Your task to perform on an android device: check google app version Image 0: 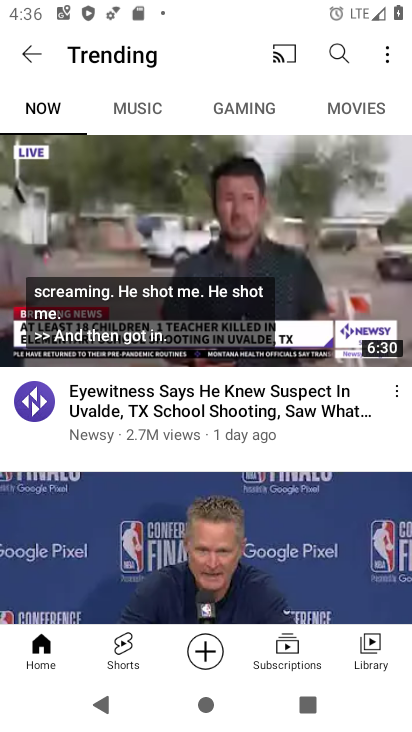
Step 0: press home button
Your task to perform on an android device: check google app version Image 1: 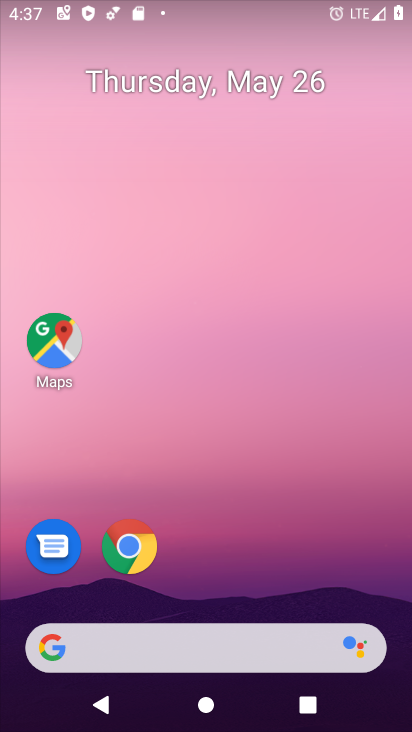
Step 1: drag from (237, 515) to (291, 2)
Your task to perform on an android device: check google app version Image 2: 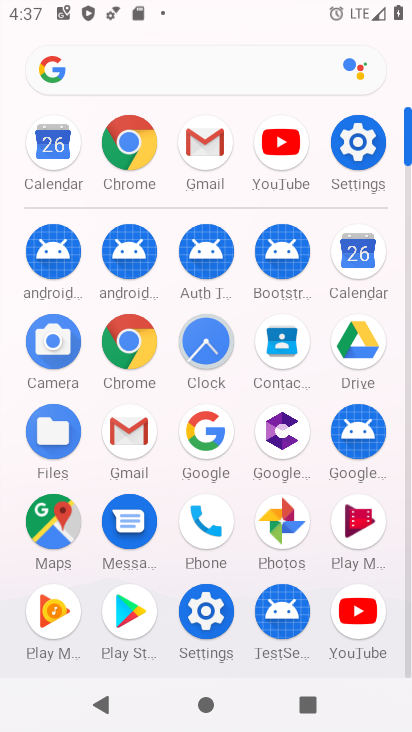
Step 2: click (204, 437)
Your task to perform on an android device: check google app version Image 3: 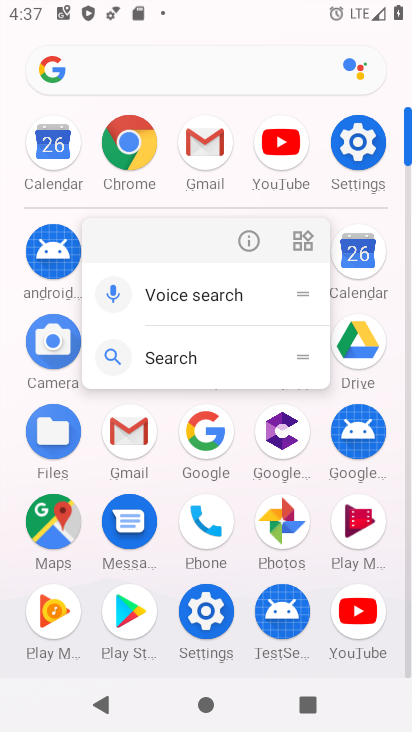
Step 3: click (247, 236)
Your task to perform on an android device: check google app version Image 4: 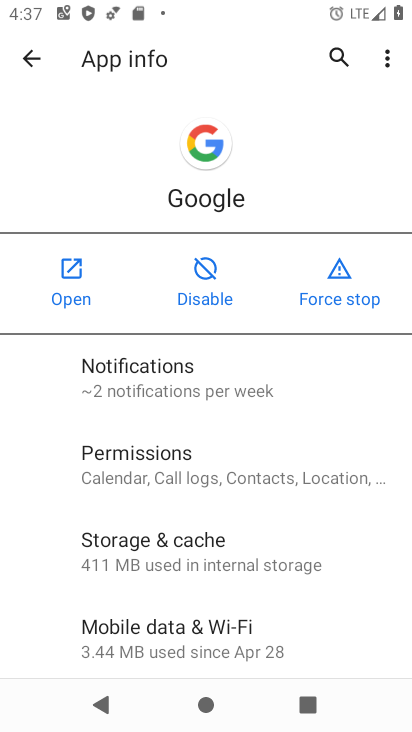
Step 4: drag from (191, 595) to (264, 70)
Your task to perform on an android device: check google app version Image 5: 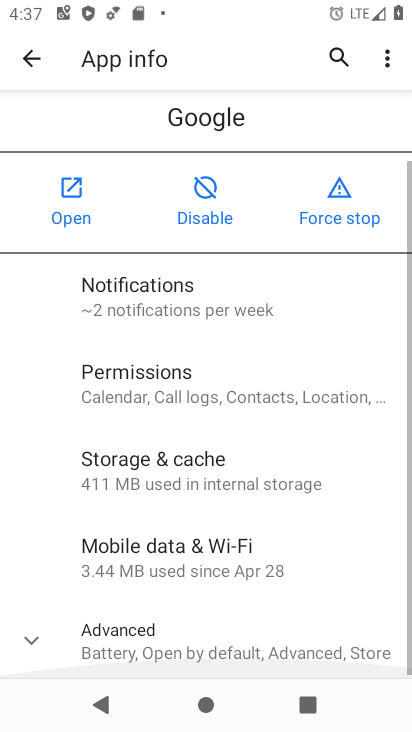
Step 5: drag from (237, 558) to (272, 101)
Your task to perform on an android device: check google app version Image 6: 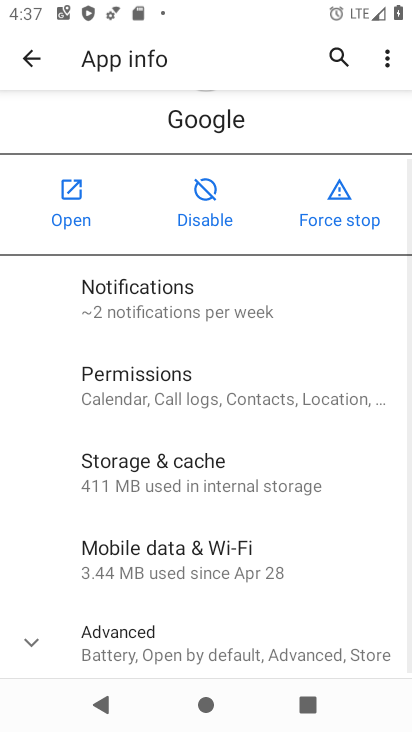
Step 6: click (132, 653)
Your task to perform on an android device: check google app version Image 7: 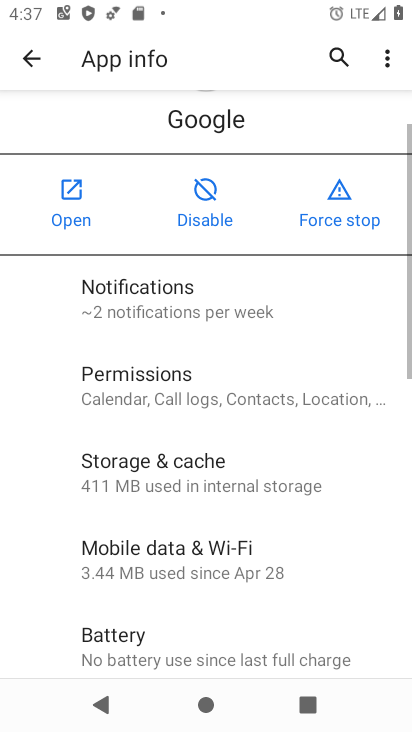
Step 7: task complete